Your task to perform on an android device: Open location settings Image 0: 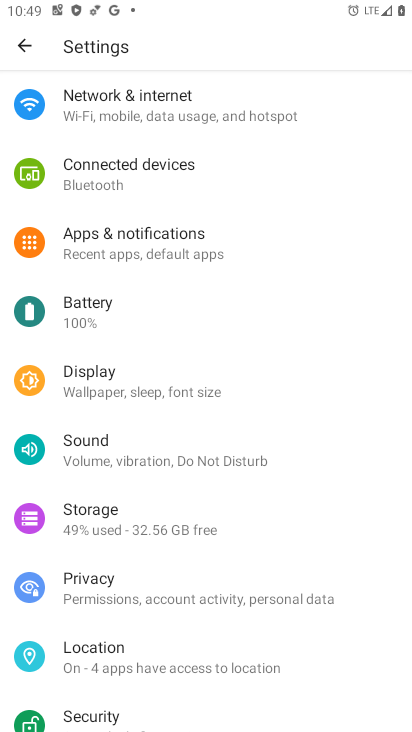
Step 0: click (93, 644)
Your task to perform on an android device: Open location settings Image 1: 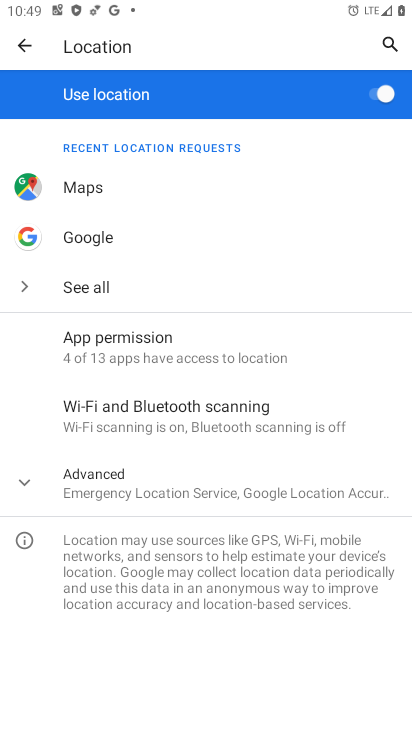
Step 1: task complete